Your task to perform on an android device: add a contact Image 0: 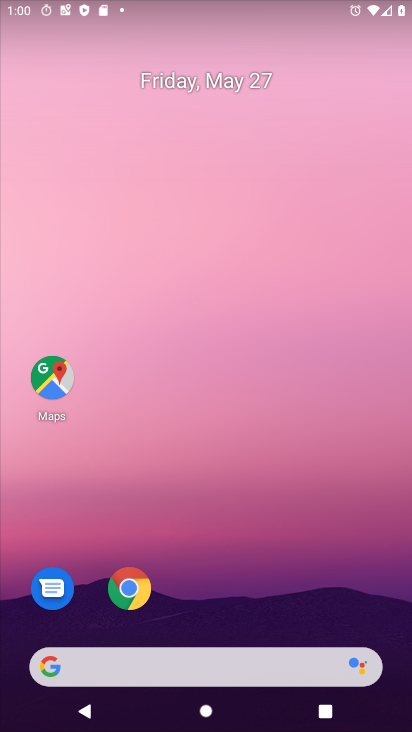
Step 0: click (205, 102)
Your task to perform on an android device: add a contact Image 1: 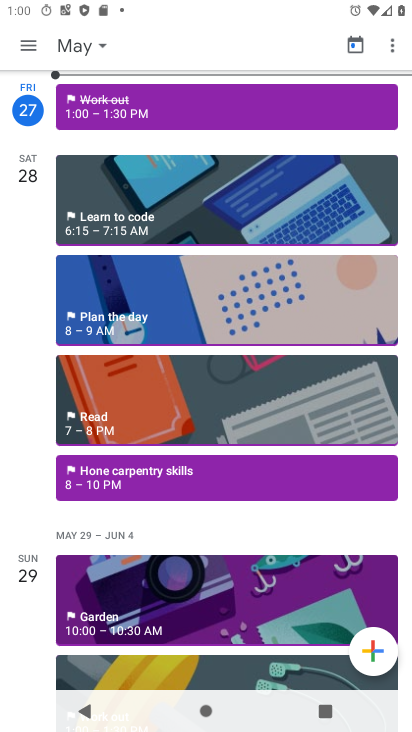
Step 1: press home button
Your task to perform on an android device: add a contact Image 2: 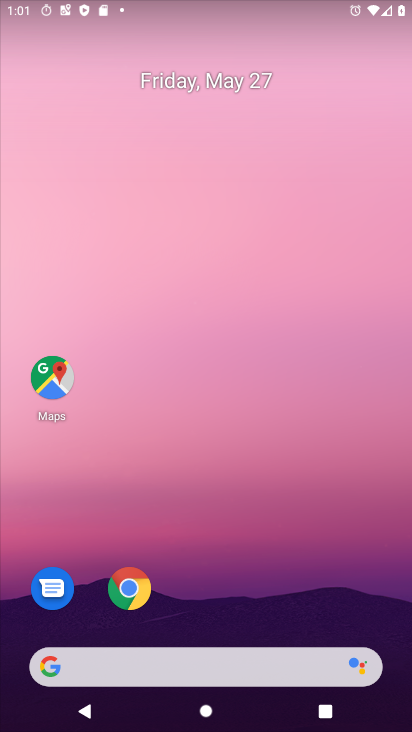
Step 2: drag from (216, 627) to (216, 29)
Your task to perform on an android device: add a contact Image 3: 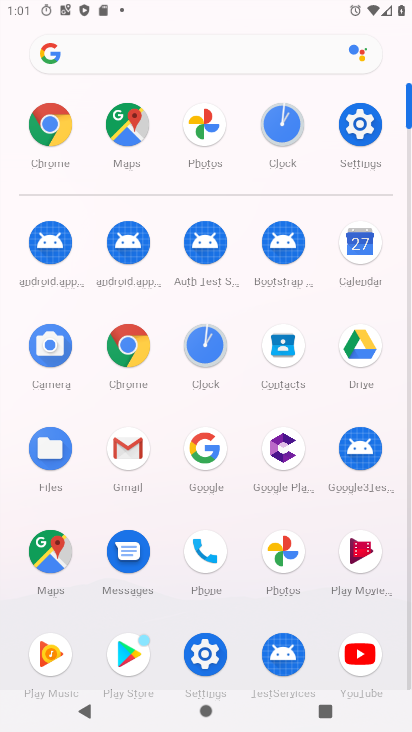
Step 3: click (281, 343)
Your task to perform on an android device: add a contact Image 4: 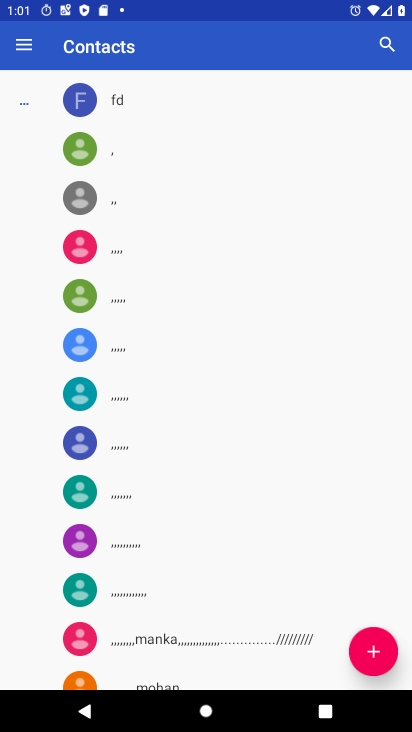
Step 4: click (370, 650)
Your task to perform on an android device: add a contact Image 5: 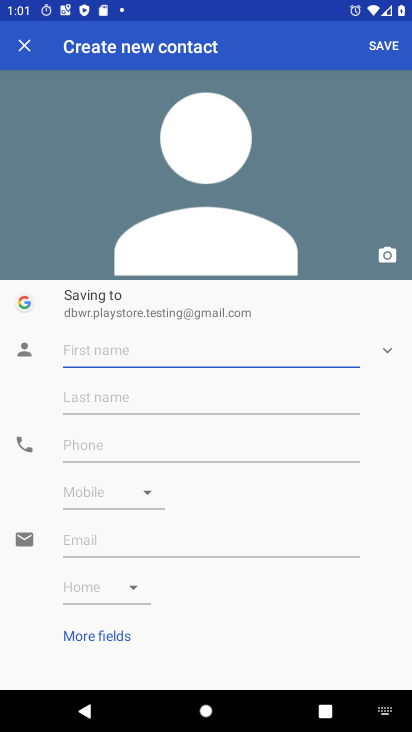
Step 5: type "hgftdx"
Your task to perform on an android device: add a contact Image 6: 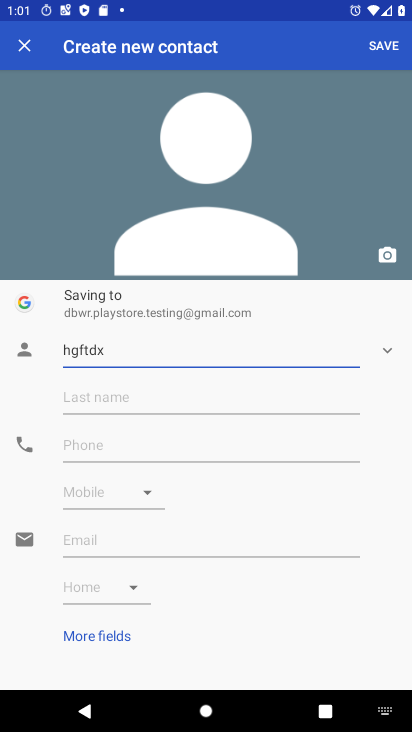
Step 6: click (380, 45)
Your task to perform on an android device: add a contact Image 7: 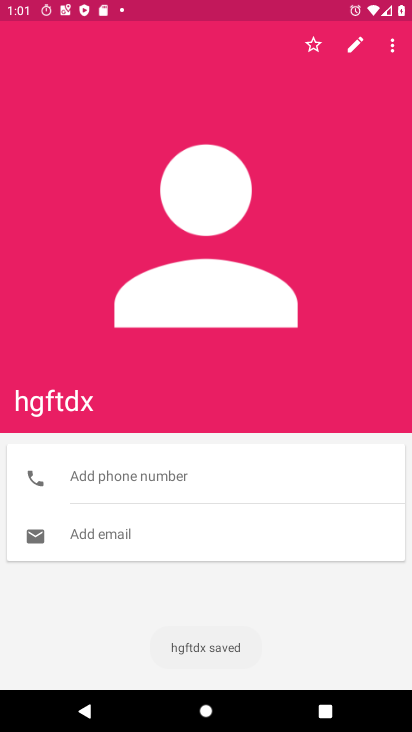
Step 7: task complete